Your task to perform on an android device: Go to CNN.com Image 0: 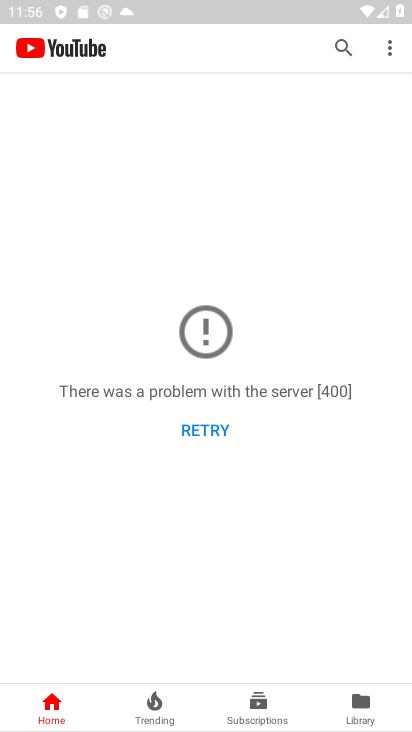
Step 0: press home button
Your task to perform on an android device: Go to CNN.com Image 1: 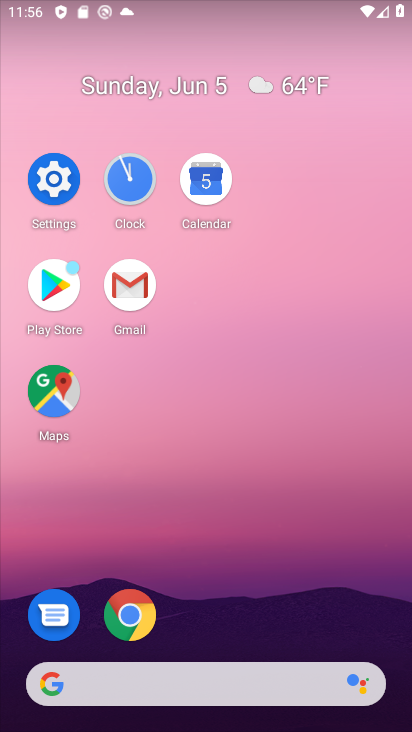
Step 1: drag from (278, 470) to (216, 137)
Your task to perform on an android device: Go to CNN.com Image 2: 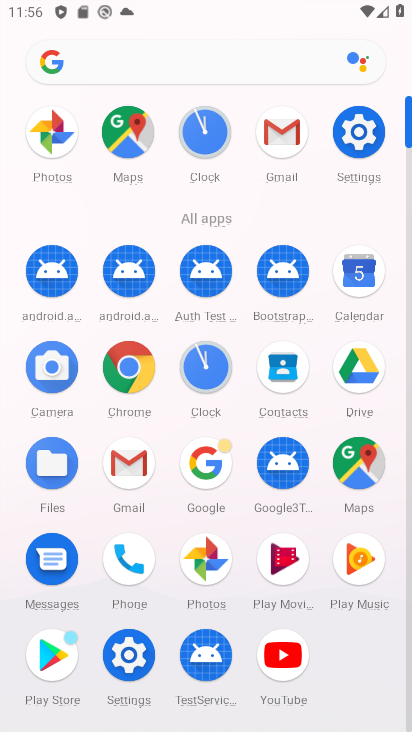
Step 2: drag from (208, 463) to (189, 307)
Your task to perform on an android device: Go to CNN.com Image 3: 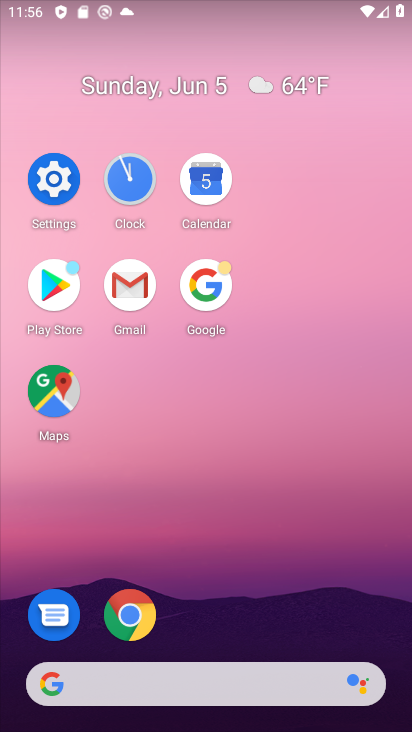
Step 3: click (205, 287)
Your task to perform on an android device: Go to CNN.com Image 4: 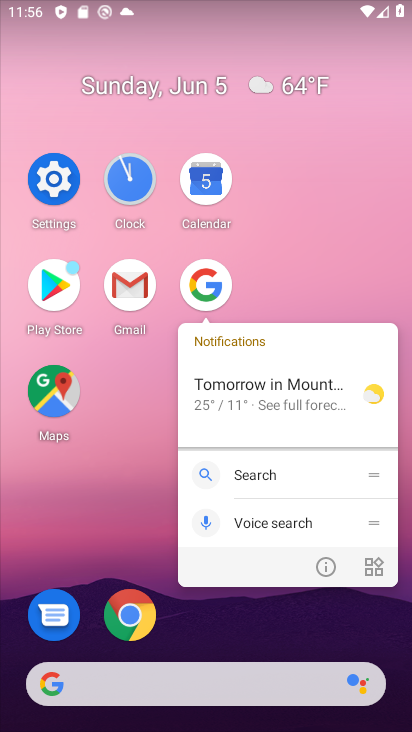
Step 4: click (205, 287)
Your task to perform on an android device: Go to CNN.com Image 5: 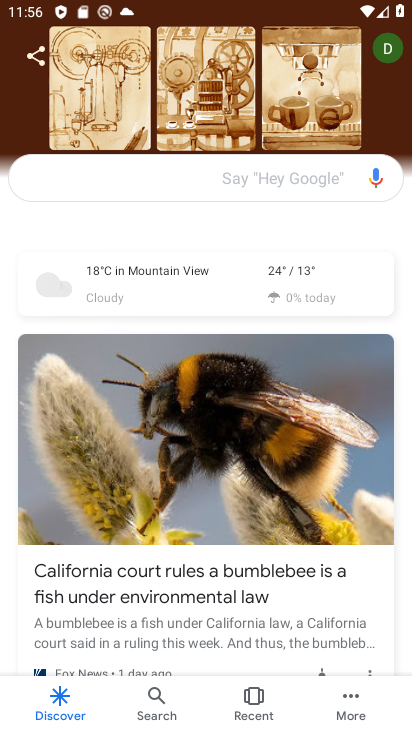
Step 5: click (203, 173)
Your task to perform on an android device: Go to CNN.com Image 6: 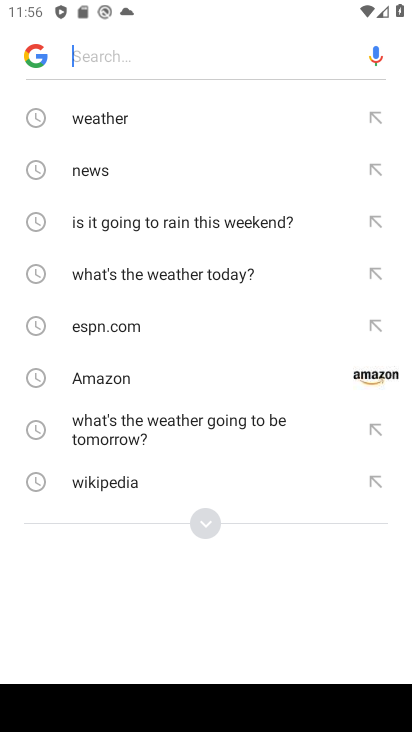
Step 6: type "cnn"
Your task to perform on an android device: Go to CNN.com Image 7: 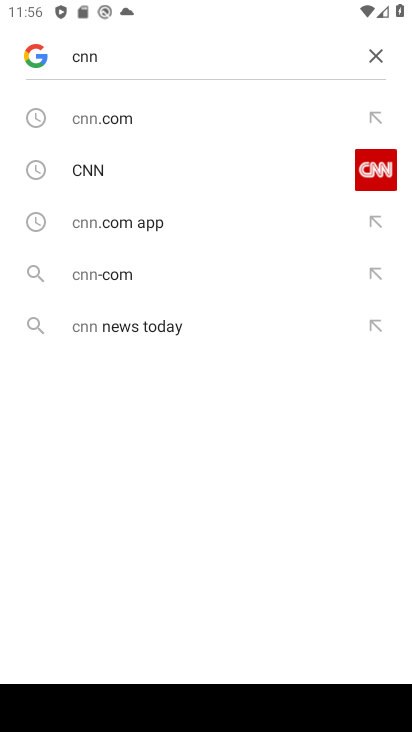
Step 7: click (117, 165)
Your task to perform on an android device: Go to CNN.com Image 8: 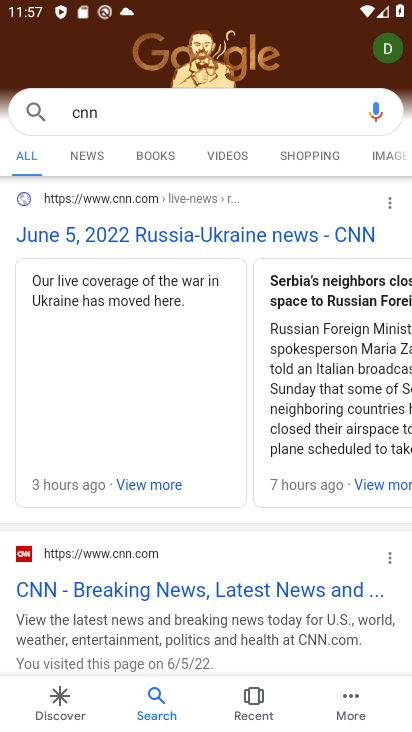
Step 8: click (135, 596)
Your task to perform on an android device: Go to CNN.com Image 9: 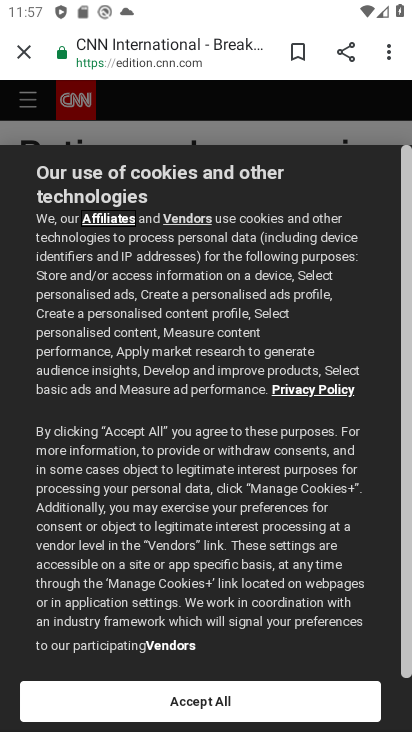
Step 9: task complete